Your task to perform on an android device: move an email to a new category in the gmail app Image 0: 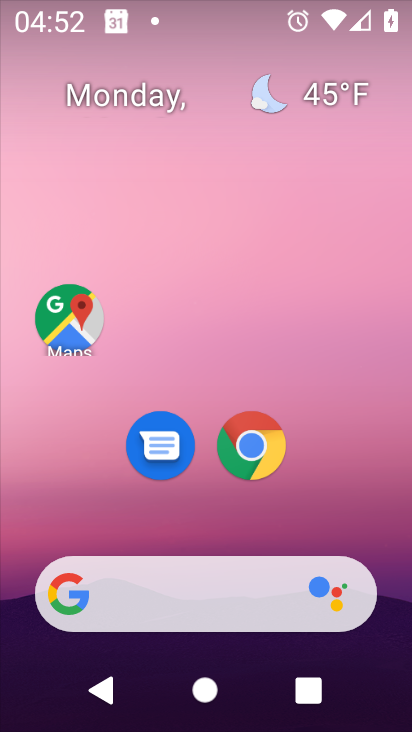
Step 0: drag from (323, 492) to (327, 75)
Your task to perform on an android device: move an email to a new category in the gmail app Image 1: 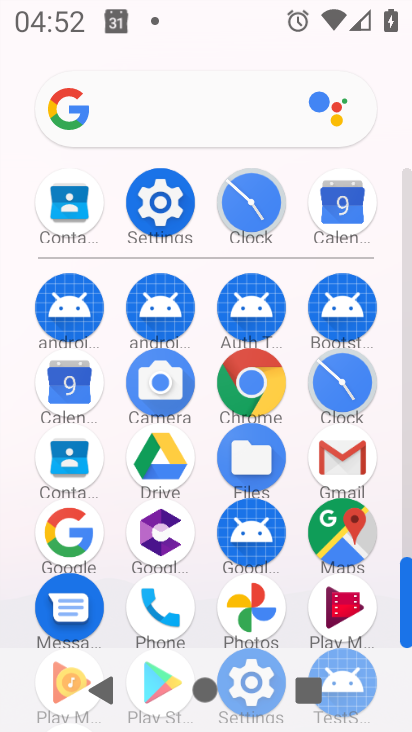
Step 1: click (346, 450)
Your task to perform on an android device: move an email to a new category in the gmail app Image 2: 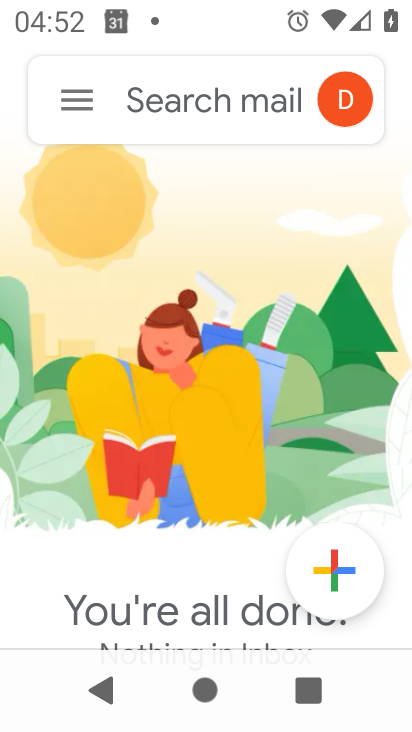
Step 2: drag from (180, 147) to (291, 621)
Your task to perform on an android device: move an email to a new category in the gmail app Image 3: 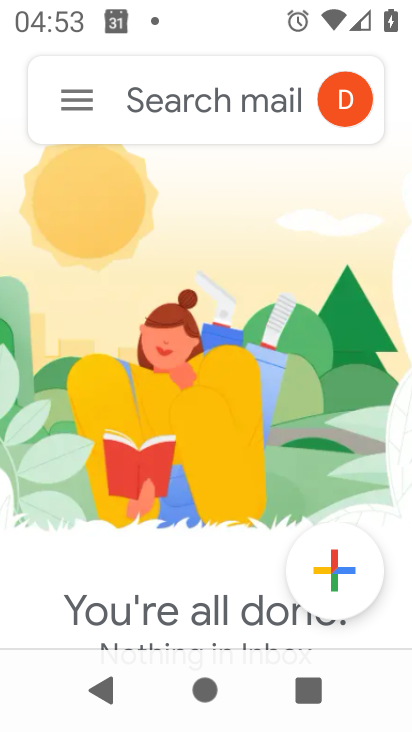
Step 3: click (80, 100)
Your task to perform on an android device: move an email to a new category in the gmail app Image 4: 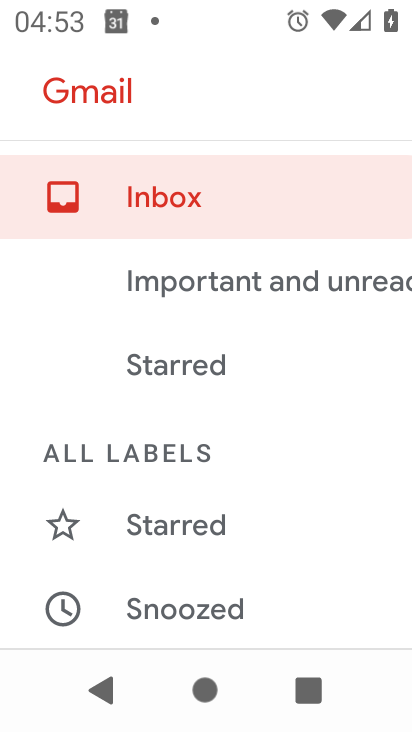
Step 4: drag from (203, 516) to (272, 168)
Your task to perform on an android device: move an email to a new category in the gmail app Image 5: 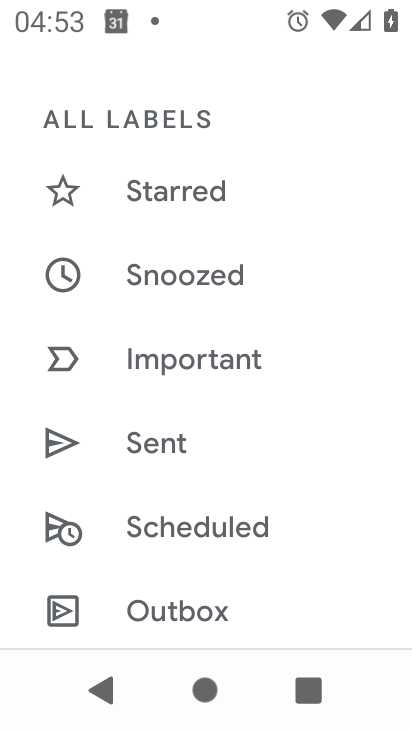
Step 5: drag from (254, 554) to (308, 131)
Your task to perform on an android device: move an email to a new category in the gmail app Image 6: 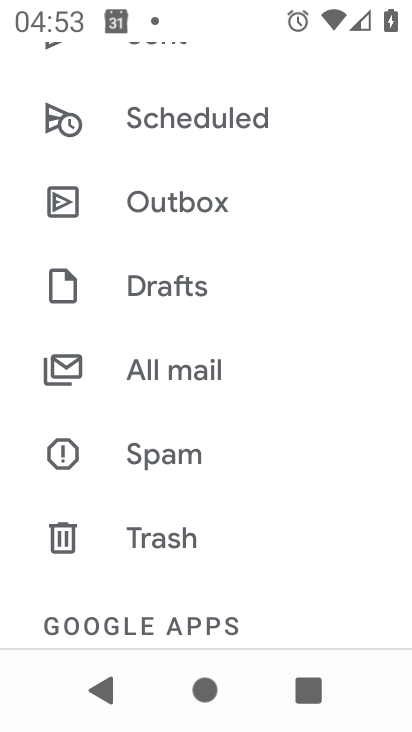
Step 6: click (202, 366)
Your task to perform on an android device: move an email to a new category in the gmail app Image 7: 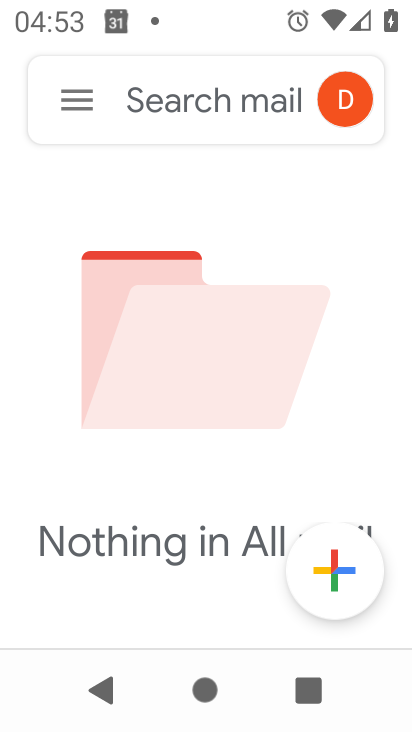
Step 7: task complete